Your task to perform on an android device: empty trash in google photos Image 0: 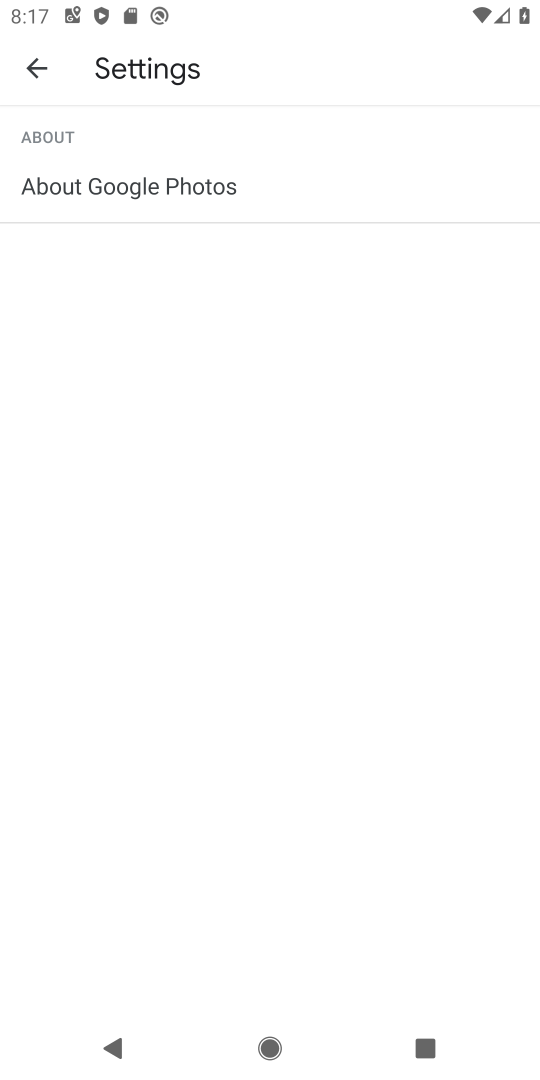
Step 0: press home button
Your task to perform on an android device: empty trash in google photos Image 1: 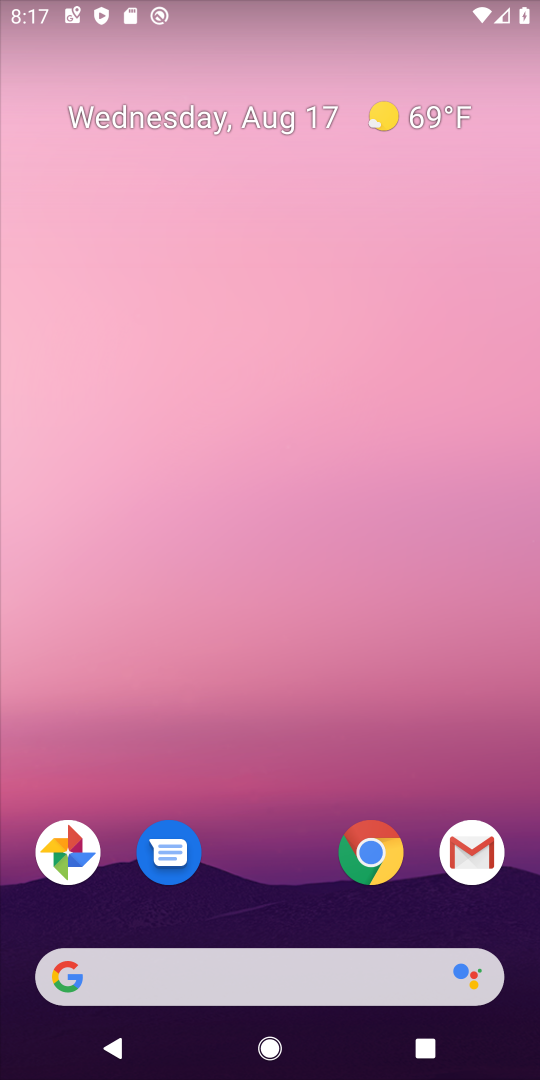
Step 1: click (70, 854)
Your task to perform on an android device: empty trash in google photos Image 2: 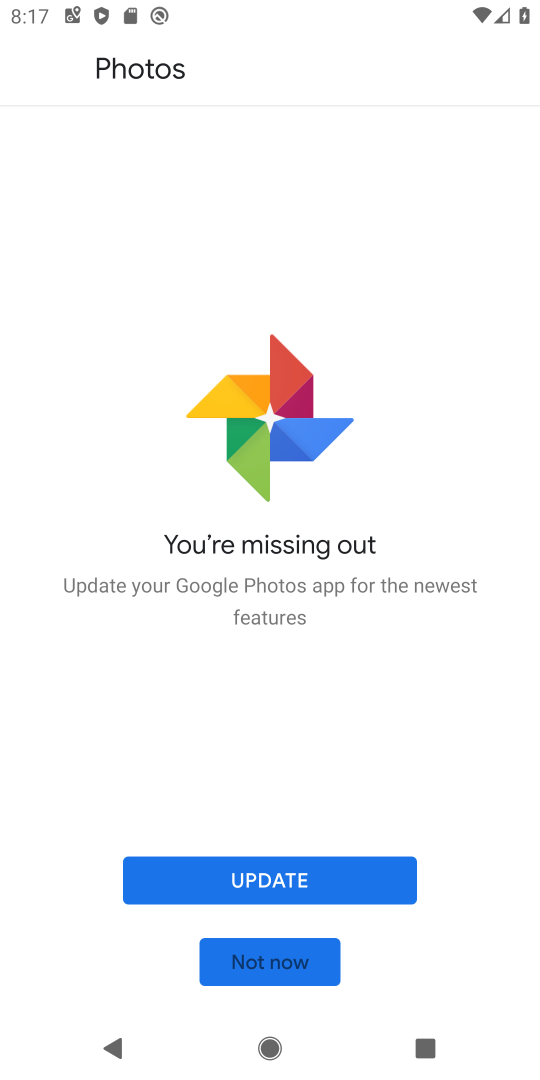
Step 2: click (214, 886)
Your task to perform on an android device: empty trash in google photos Image 3: 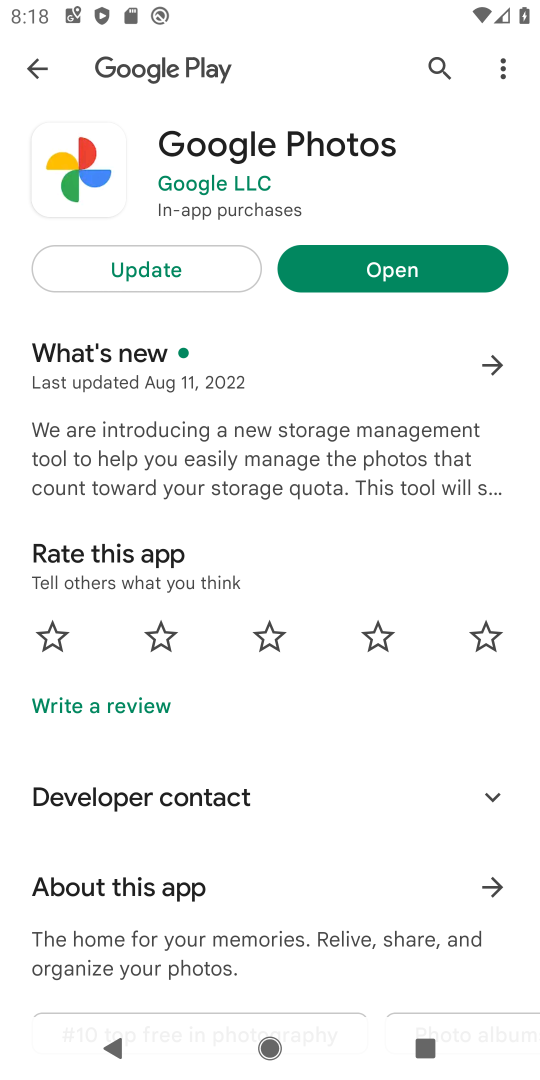
Step 3: click (130, 266)
Your task to perform on an android device: empty trash in google photos Image 4: 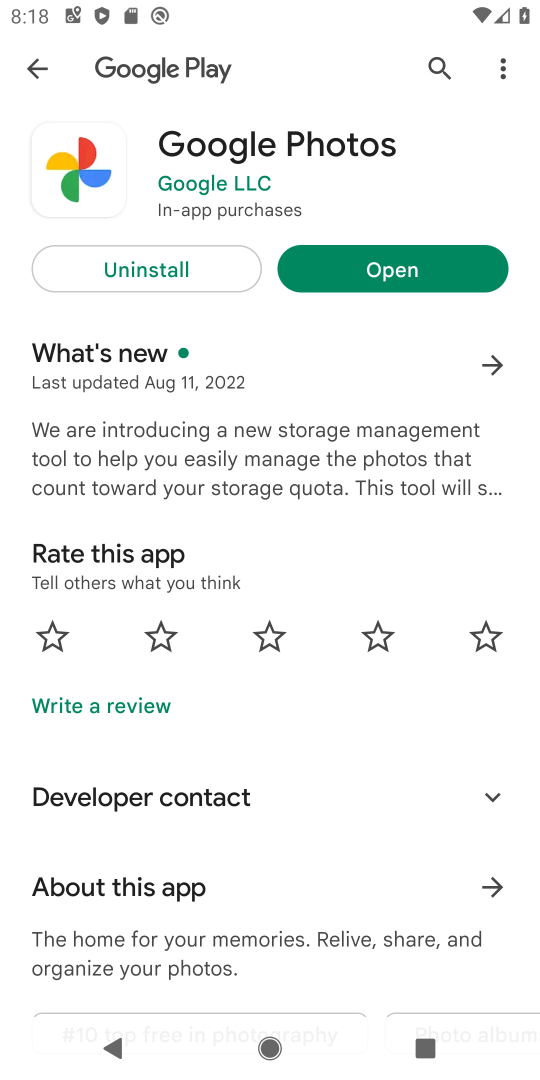
Step 4: click (354, 263)
Your task to perform on an android device: empty trash in google photos Image 5: 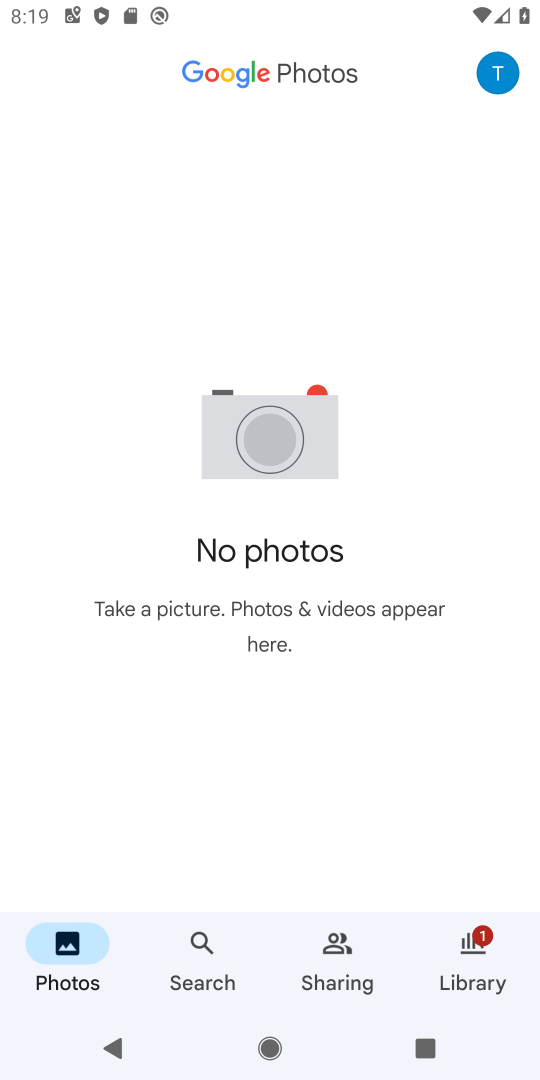
Step 5: click (467, 954)
Your task to perform on an android device: empty trash in google photos Image 6: 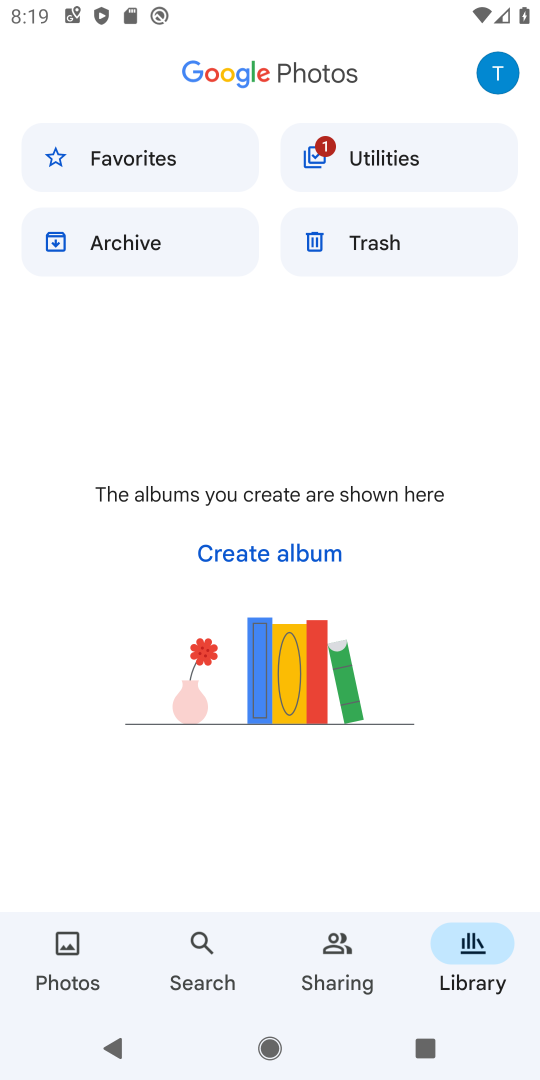
Step 6: click (383, 234)
Your task to perform on an android device: empty trash in google photos Image 7: 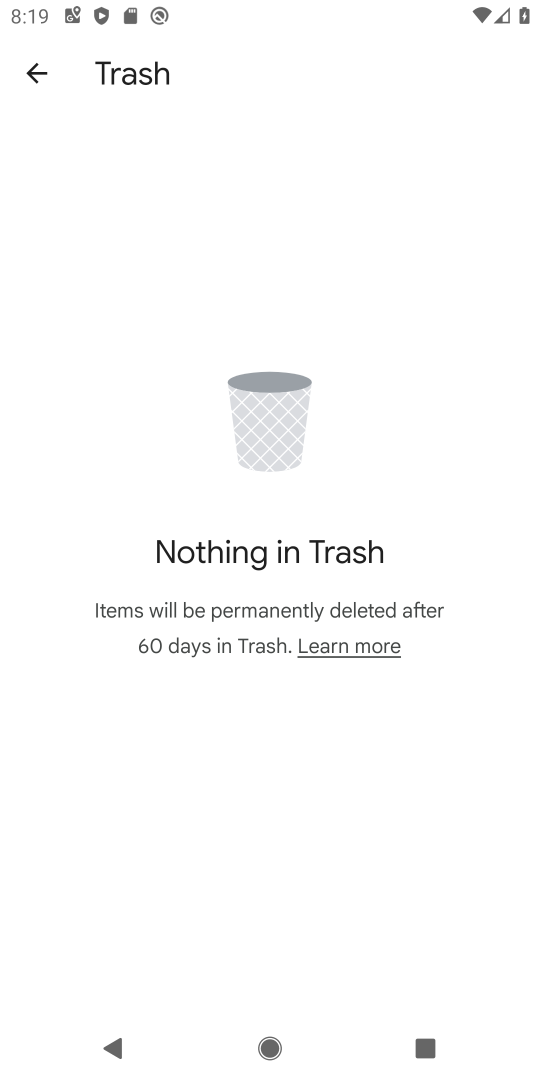
Step 7: task complete